Your task to perform on an android device: toggle show notifications on the lock screen Image 0: 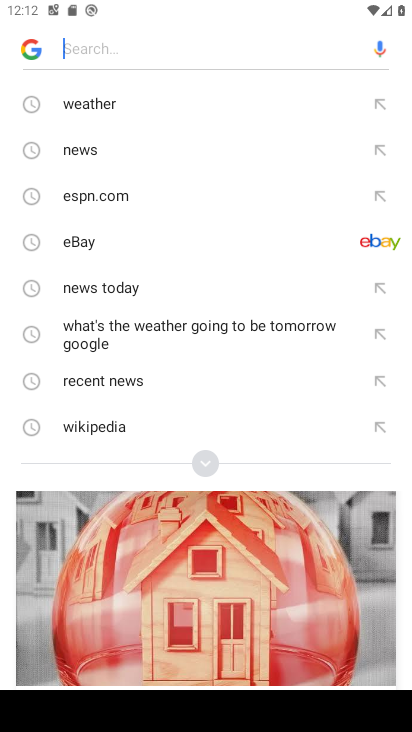
Step 0: press home button
Your task to perform on an android device: toggle show notifications on the lock screen Image 1: 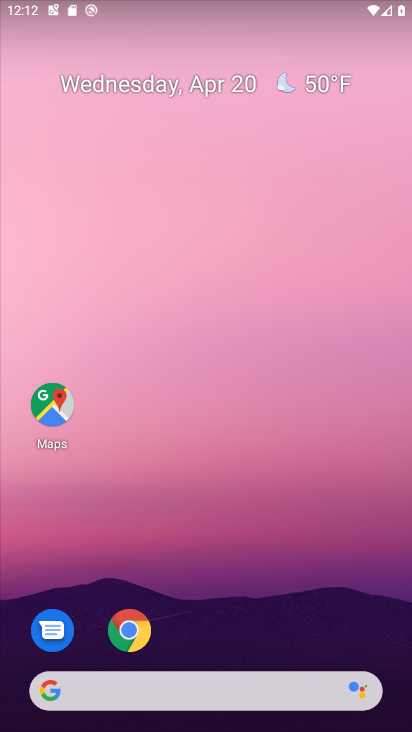
Step 1: drag from (302, 619) to (248, 113)
Your task to perform on an android device: toggle show notifications on the lock screen Image 2: 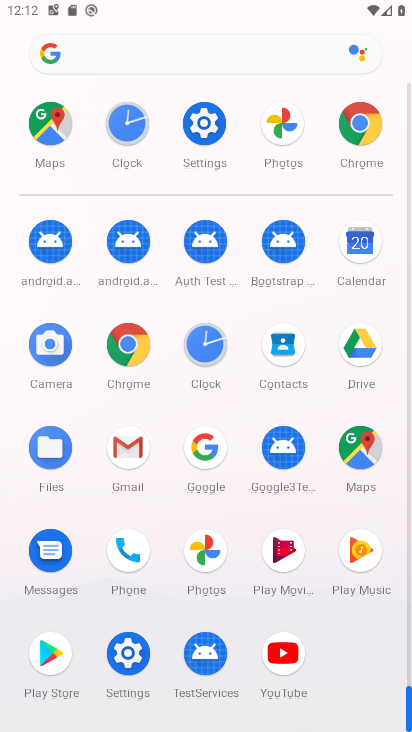
Step 2: click (127, 645)
Your task to perform on an android device: toggle show notifications on the lock screen Image 3: 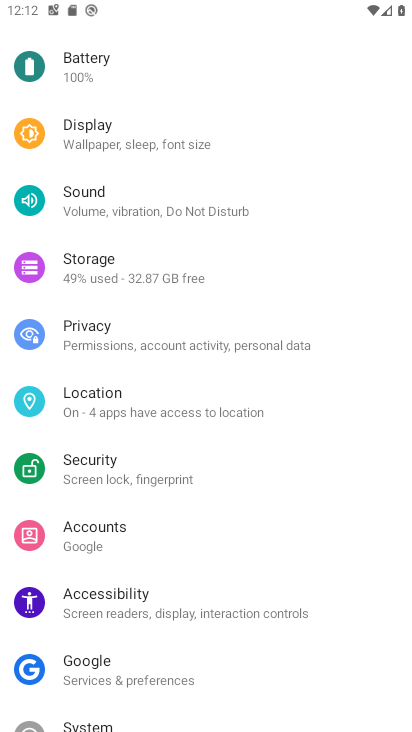
Step 3: drag from (223, 525) to (240, 486)
Your task to perform on an android device: toggle show notifications on the lock screen Image 4: 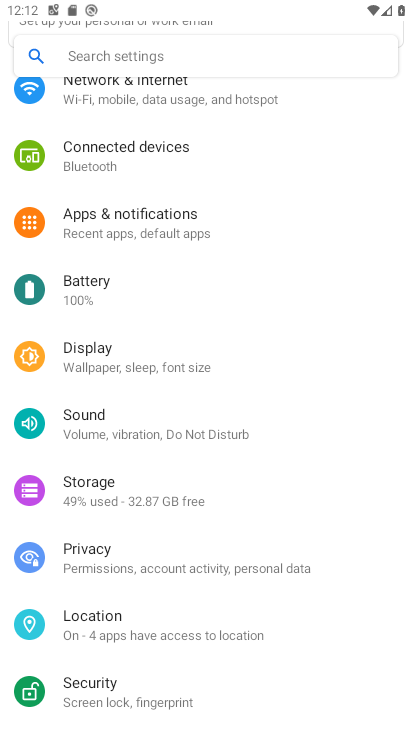
Step 4: click (122, 232)
Your task to perform on an android device: toggle show notifications on the lock screen Image 5: 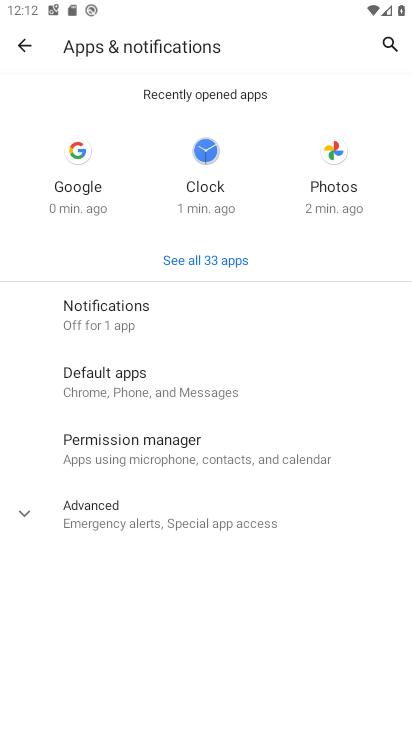
Step 5: click (117, 318)
Your task to perform on an android device: toggle show notifications on the lock screen Image 6: 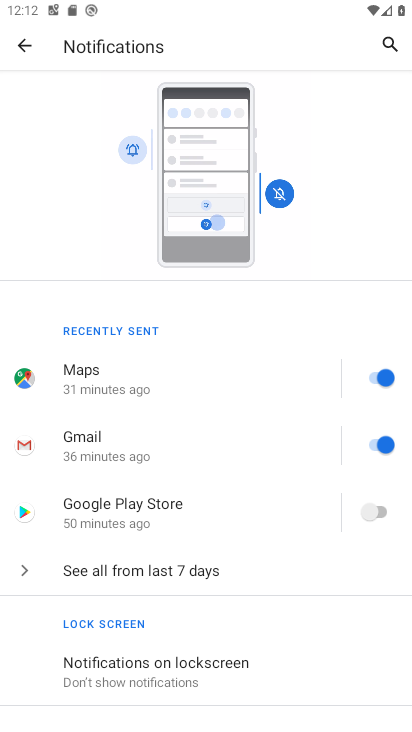
Step 6: click (194, 656)
Your task to perform on an android device: toggle show notifications on the lock screen Image 7: 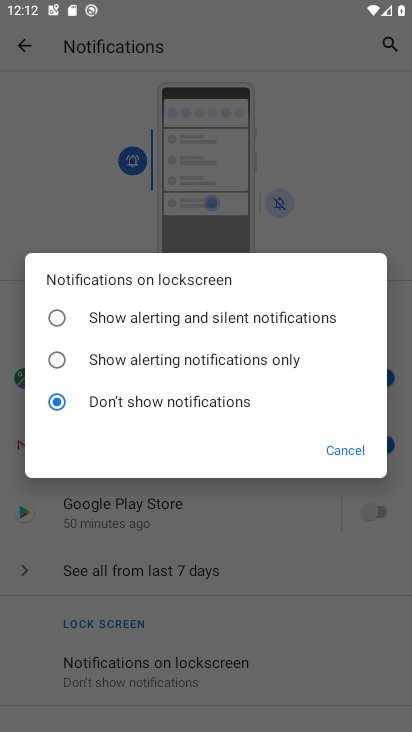
Step 7: click (145, 357)
Your task to perform on an android device: toggle show notifications on the lock screen Image 8: 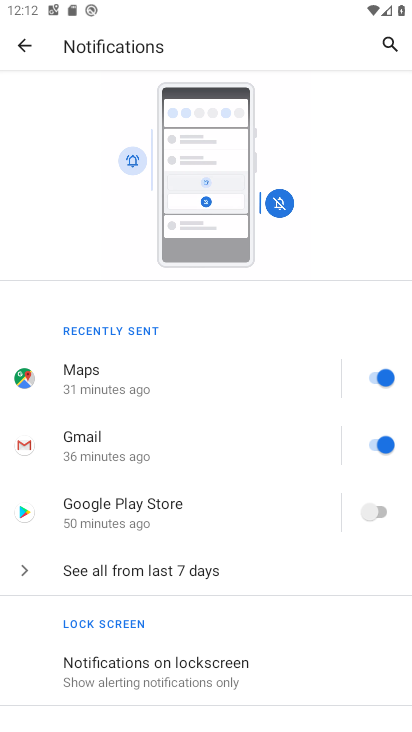
Step 8: task complete